Your task to perform on an android device: toggle wifi Image 0: 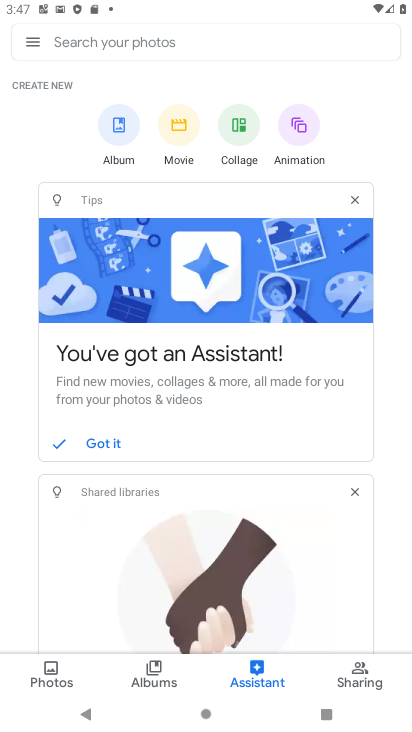
Step 0: press home button
Your task to perform on an android device: toggle wifi Image 1: 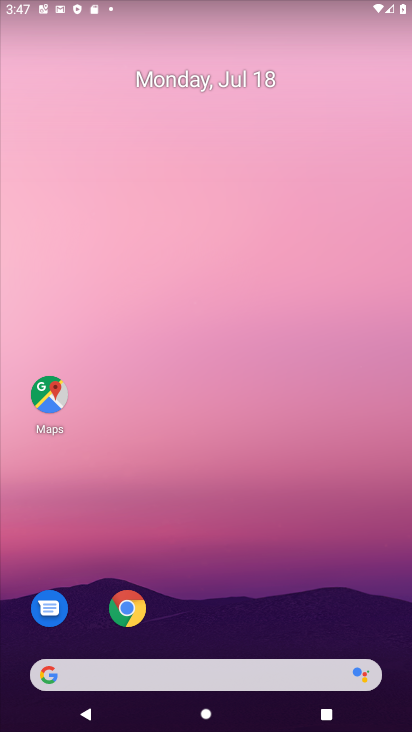
Step 1: drag from (349, 638) to (369, 162)
Your task to perform on an android device: toggle wifi Image 2: 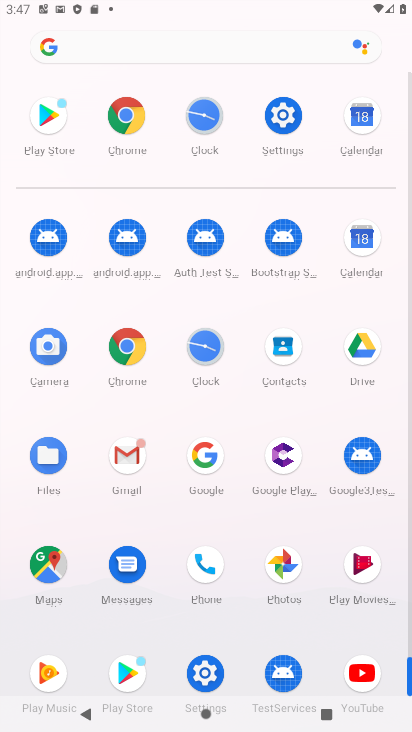
Step 2: click (286, 119)
Your task to perform on an android device: toggle wifi Image 3: 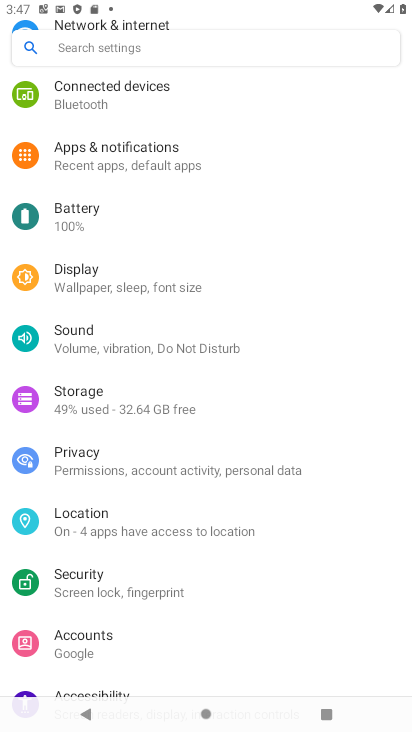
Step 3: drag from (147, 235) to (152, 614)
Your task to perform on an android device: toggle wifi Image 4: 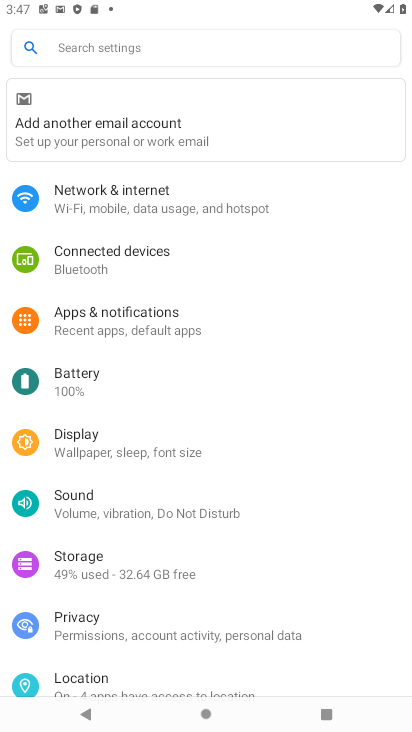
Step 4: click (157, 203)
Your task to perform on an android device: toggle wifi Image 5: 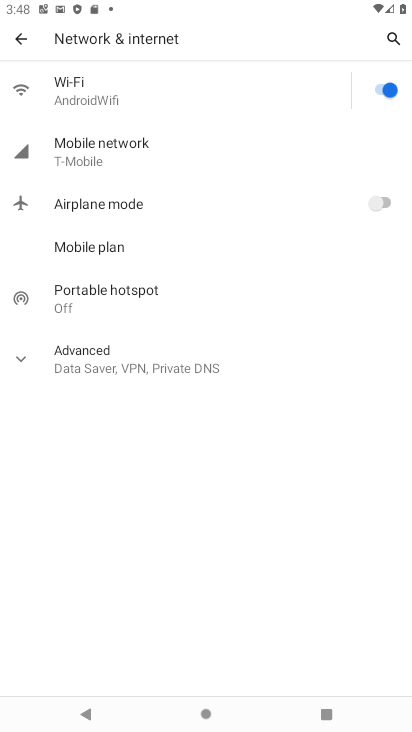
Step 5: click (376, 92)
Your task to perform on an android device: toggle wifi Image 6: 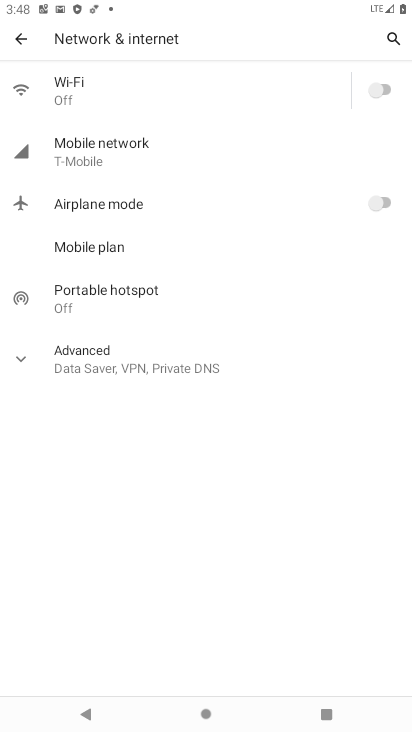
Step 6: task complete